Your task to perform on an android device: Open the Play Movies app and select the watchlist tab. Image 0: 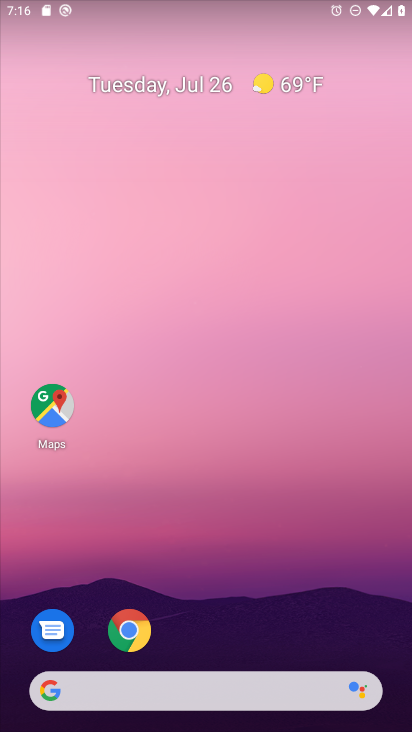
Step 0: drag from (270, 545) to (276, 60)
Your task to perform on an android device: Open the Play Movies app and select the watchlist tab. Image 1: 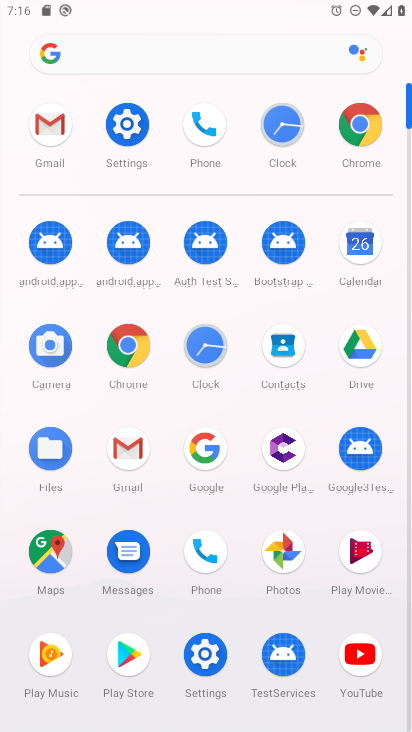
Step 1: click (365, 565)
Your task to perform on an android device: Open the Play Movies app and select the watchlist tab. Image 2: 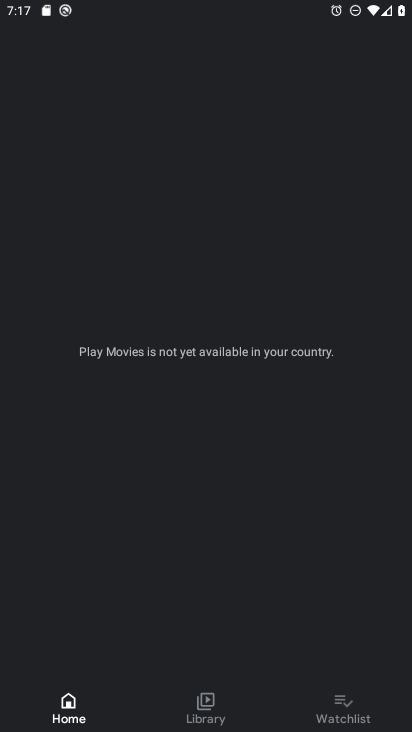
Step 2: click (326, 705)
Your task to perform on an android device: Open the Play Movies app and select the watchlist tab. Image 3: 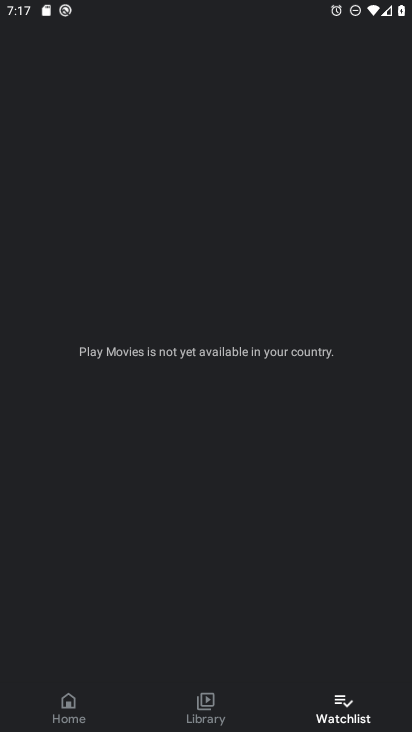
Step 3: task complete